Your task to perform on an android device: Go to battery settings Image 0: 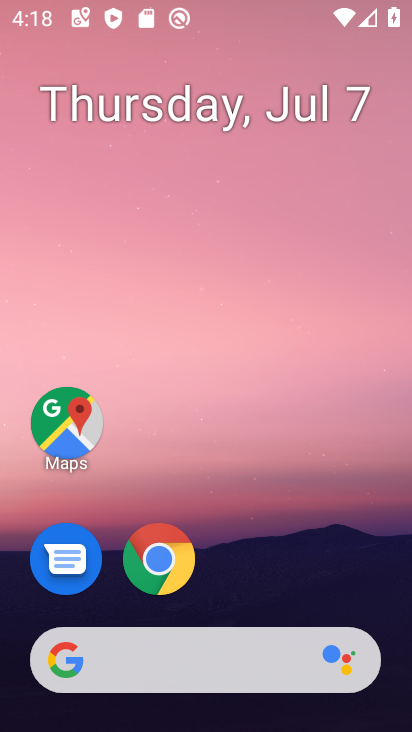
Step 0: drag from (246, 568) to (321, 29)
Your task to perform on an android device: Go to battery settings Image 1: 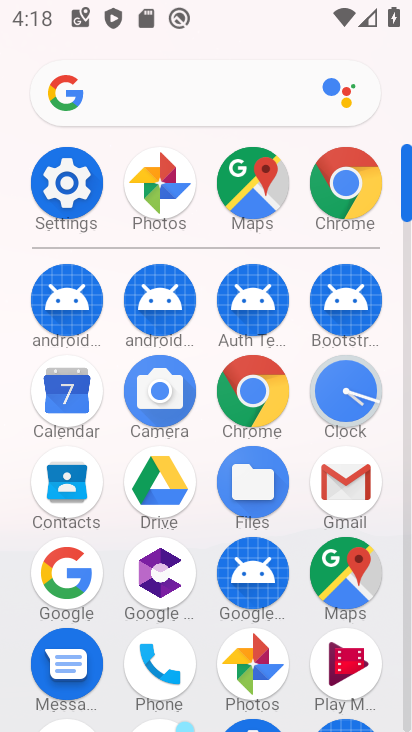
Step 1: click (354, 384)
Your task to perform on an android device: Go to battery settings Image 2: 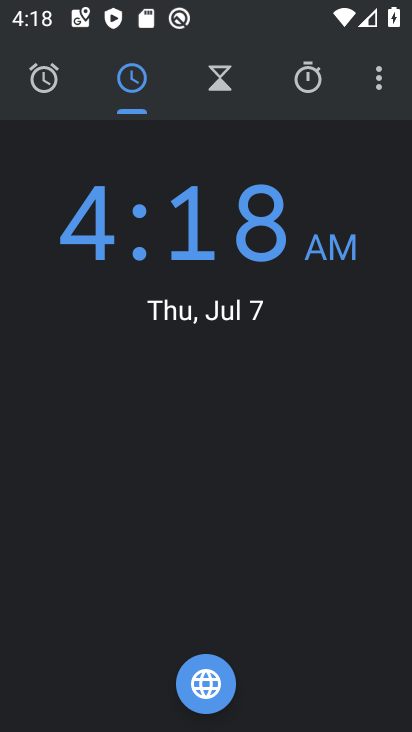
Step 2: press back button
Your task to perform on an android device: Go to battery settings Image 3: 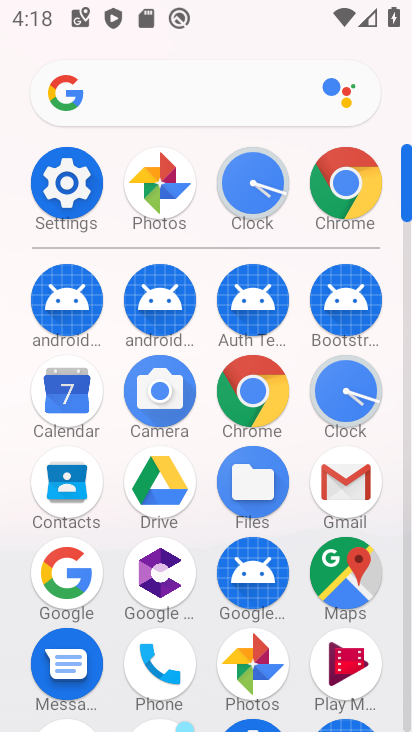
Step 3: click (72, 184)
Your task to perform on an android device: Go to battery settings Image 4: 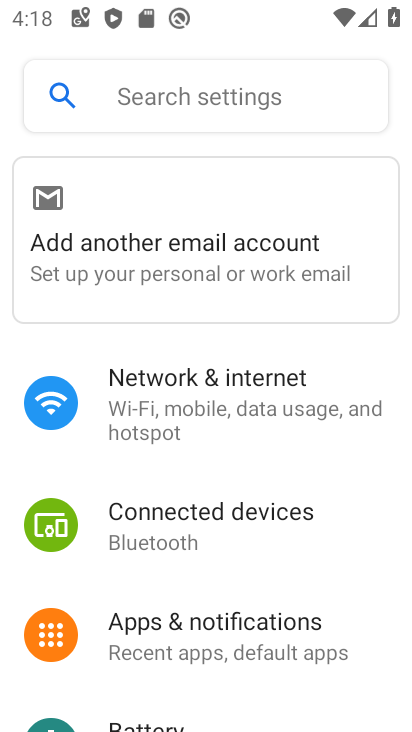
Step 4: click (140, 725)
Your task to perform on an android device: Go to battery settings Image 5: 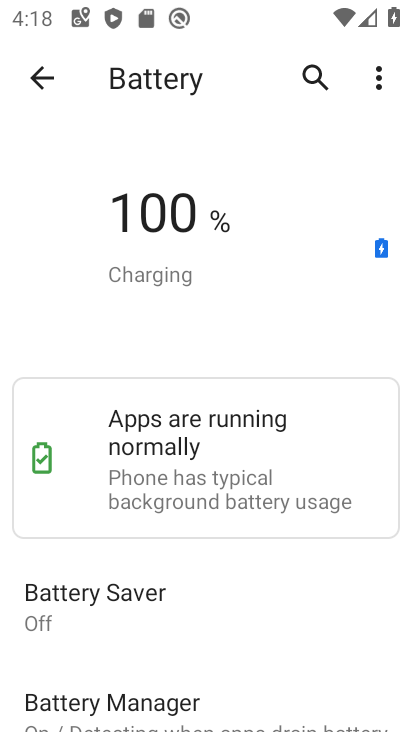
Step 5: task complete